Your task to perform on an android device: Go to Maps Image 0: 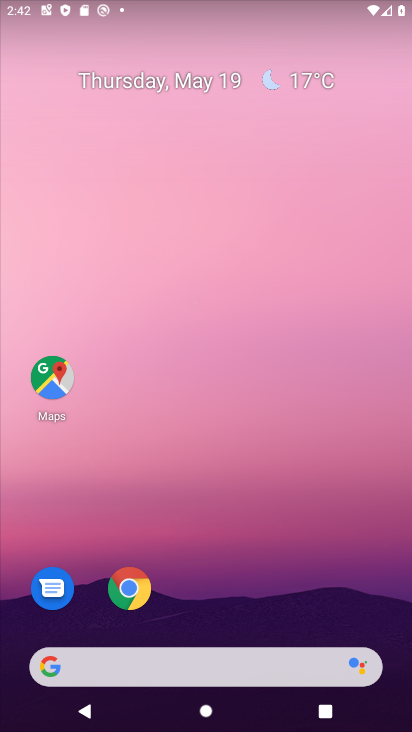
Step 0: click (66, 372)
Your task to perform on an android device: Go to Maps Image 1: 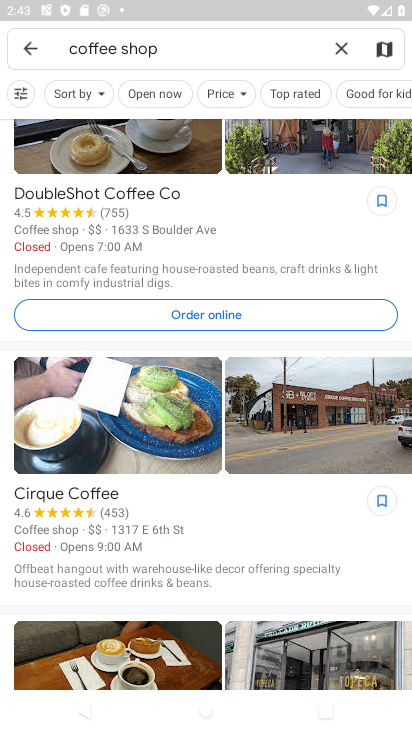
Step 1: task complete